Your task to perform on an android device: turn off notifications settings in the gmail app Image 0: 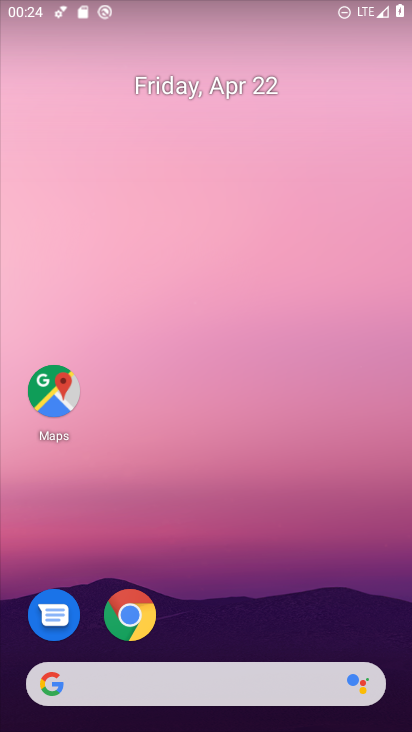
Step 0: click (217, 42)
Your task to perform on an android device: turn off notifications settings in the gmail app Image 1: 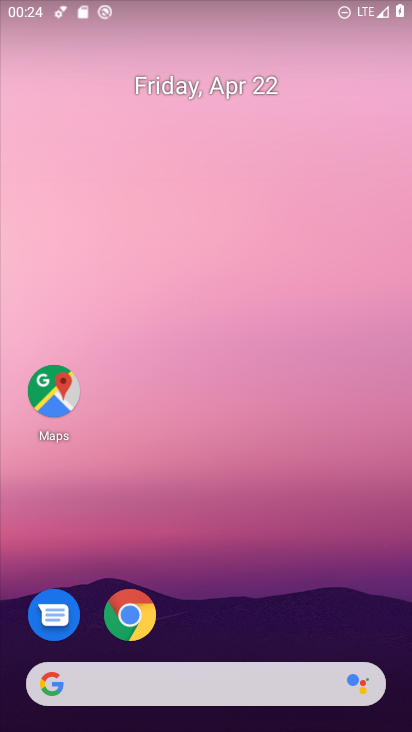
Step 1: drag from (237, 444) to (237, 2)
Your task to perform on an android device: turn off notifications settings in the gmail app Image 2: 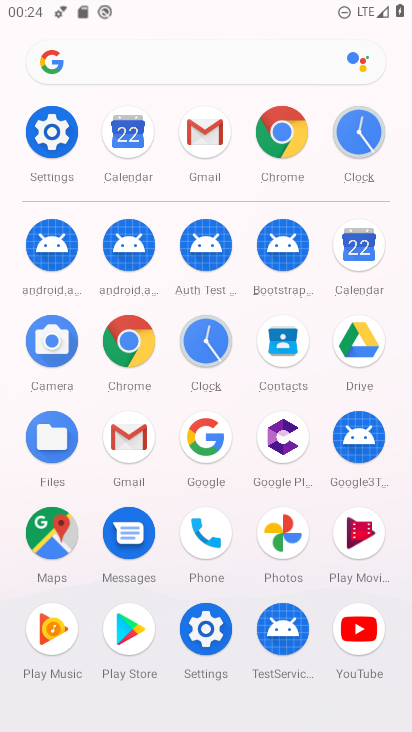
Step 2: click (128, 430)
Your task to perform on an android device: turn off notifications settings in the gmail app Image 3: 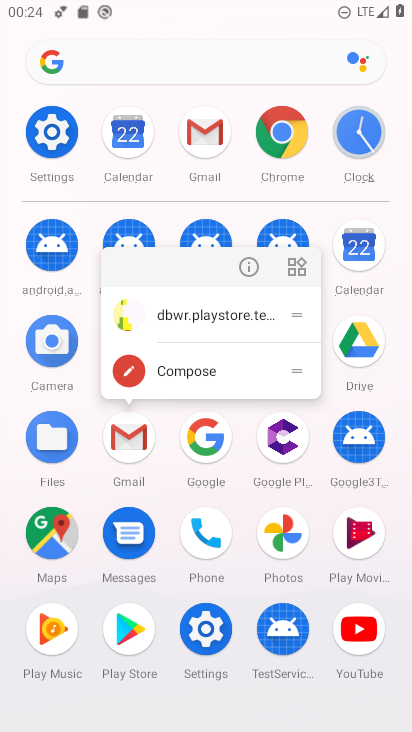
Step 3: click (128, 430)
Your task to perform on an android device: turn off notifications settings in the gmail app Image 4: 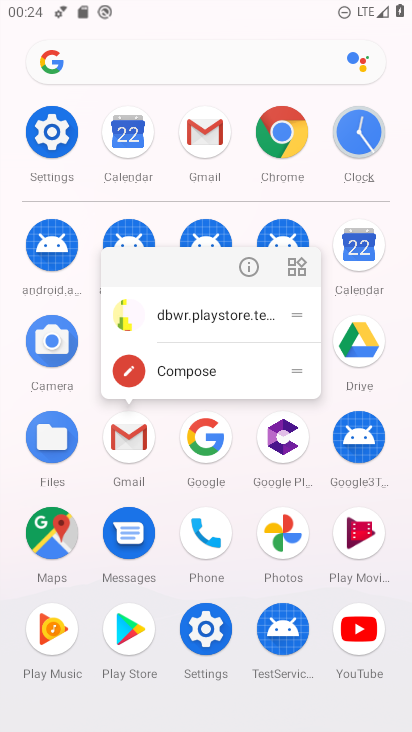
Step 4: click (128, 430)
Your task to perform on an android device: turn off notifications settings in the gmail app Image 5: 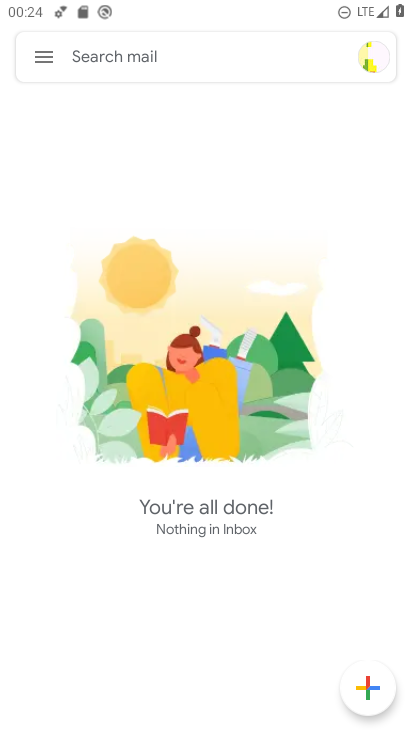
Step 5: click (39, 53)
Your task to perform on an android device: turn off notifications settings in the gmail app Image 6: 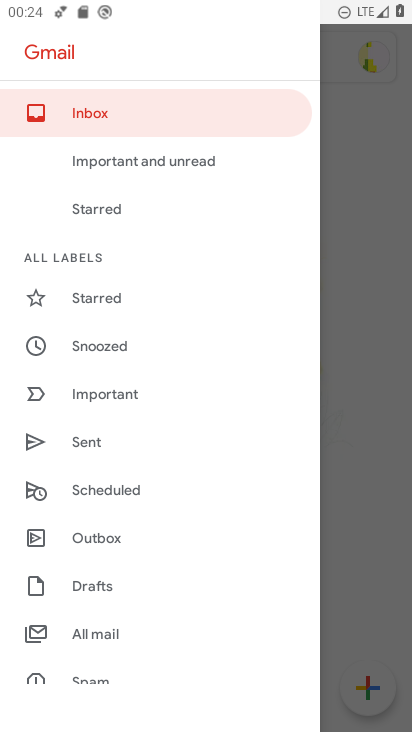
Step 6: drag from (151, 646) to (174, 104)
Your task to perform on an android device: turn off notifications settings in the gmail app Image 7: 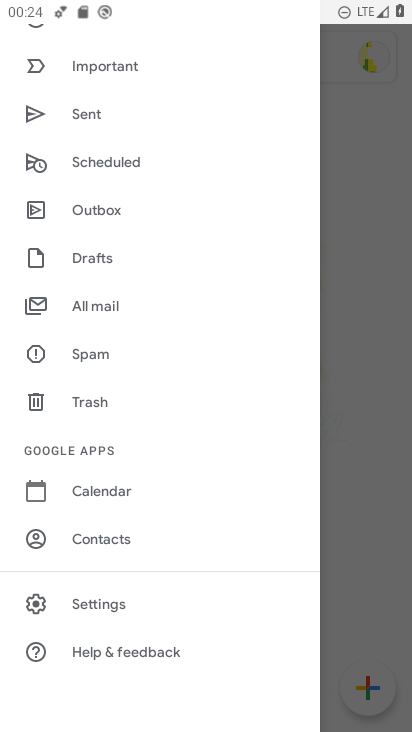
Step 7: click (131, 596)
Your task to perform on an android device: turn off notifications settings in the gmail app Image 8: 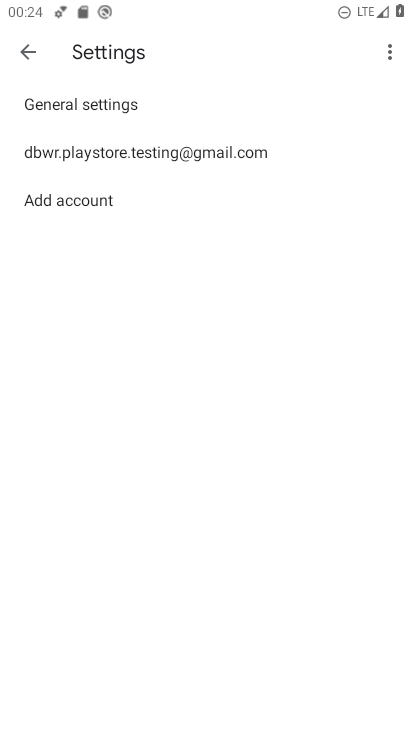
Step 8: click (151, 104)
Your task to perform on an android device: turn off notifications settings in the gmail app Image 9: 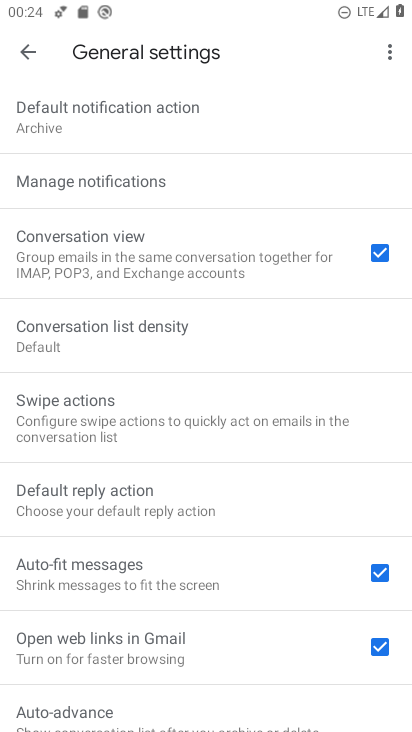
Step 9: click (179, 175)
Your task to perform on an android device: turn off notifications settings in the gmail app Image 10: 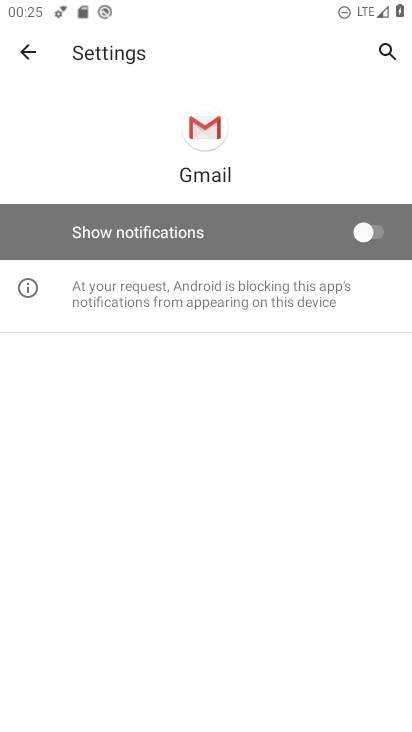
Step 10: task complete